Your task to perform on an android device: change the clock display to analog Image 0: 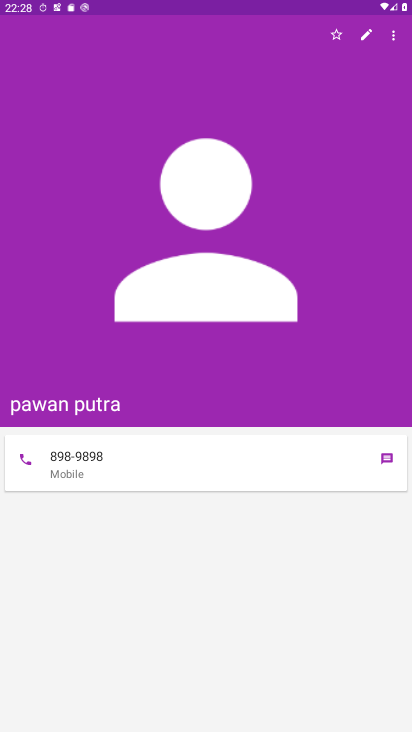
Step 0: press home button
Your task to perform on an android device: change the clock display to analog Image 1: 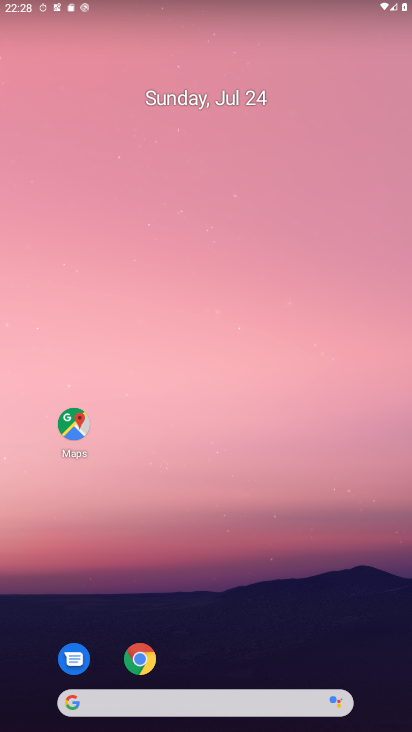
Step 1: drag from (217, 706) to (165, 102)
Your task to perform on an android device: change the clock display to analog Image 2: 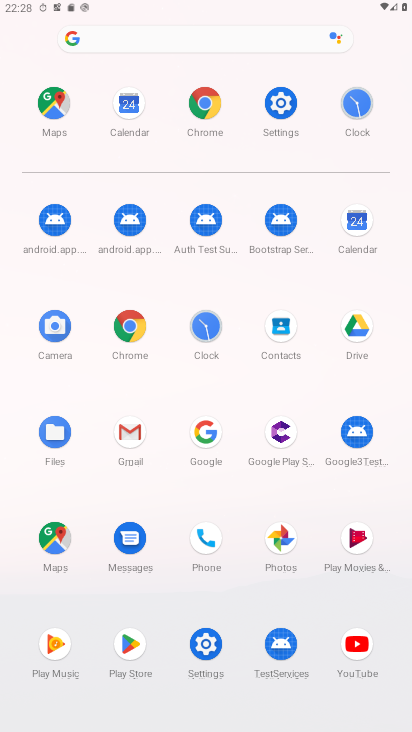
Step 2: click (218, 319)
Your task to perform on an android device: change the clock display to analog Image 3: 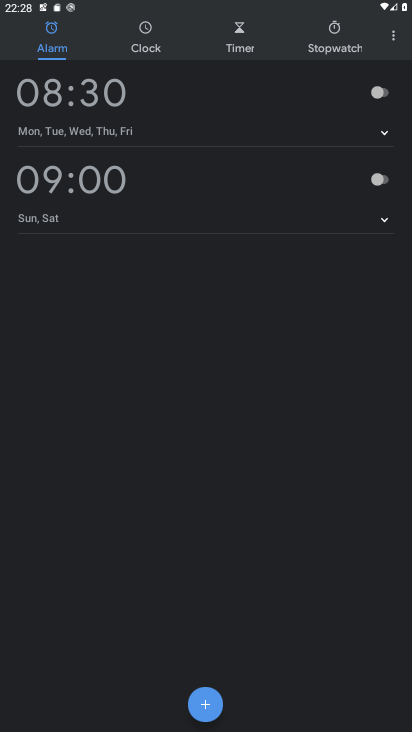
Step 3: click (392, 37)
Your task to perform on an android device: change the clock display to analog Image 4: 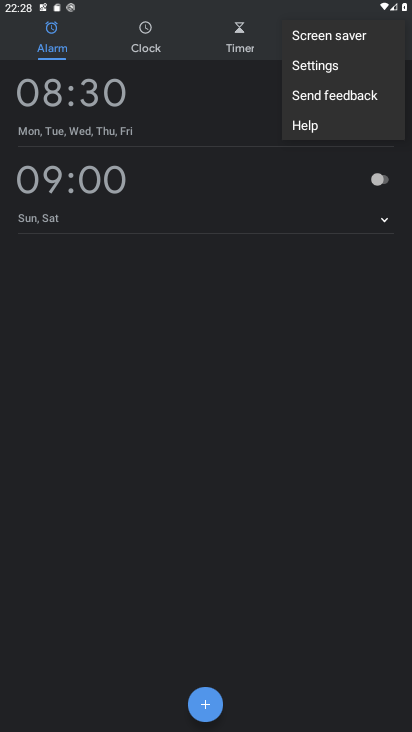
Step 4: click (319, 65)
Your task to perform on an android device: change the clock display to analog Image 5: 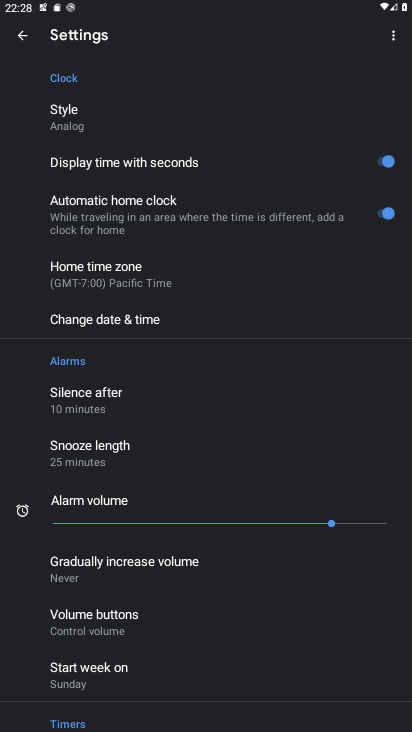
Step 5: task complete